Your task to perform on an android device: Go to Yahoo.com Image 0: 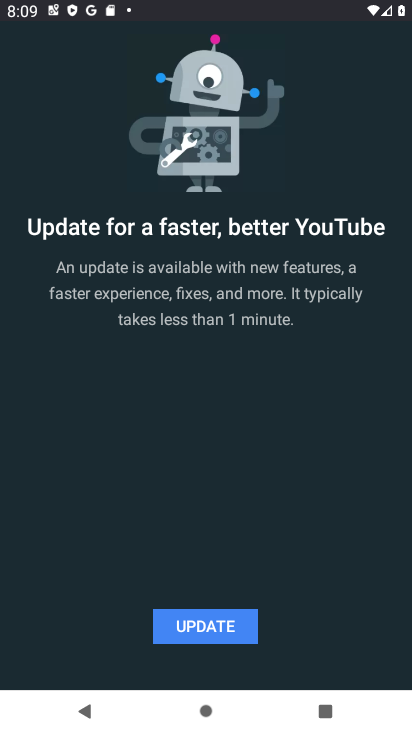
Step 0: press home button
Your task to perform on an android device: Go to Yahoo.com Image 1: 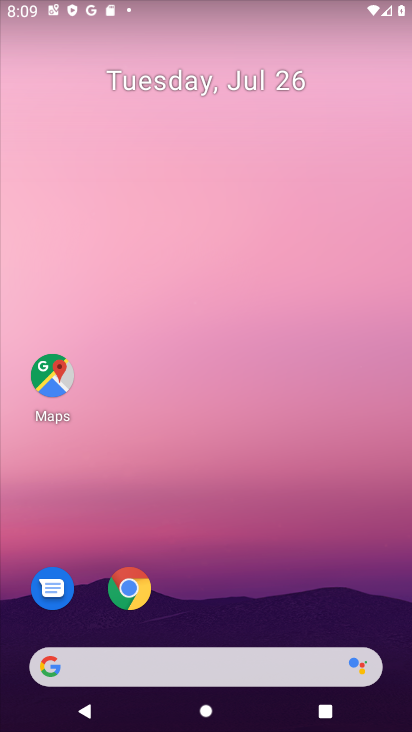
Step 1: click (42, 663)
Your task to perform on an android device: Go to Yahoo.com Image 2: 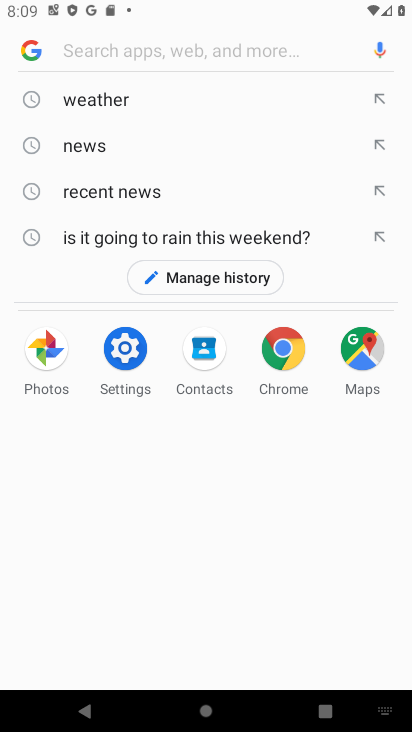
Step 2: type " Yahoo.com"
Your task to perform on an android device: Go to Yahoo.com Image 3: 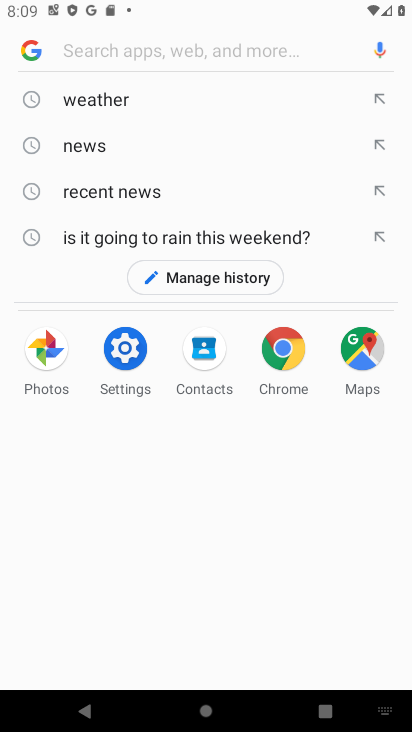
Step 3: click (105, 49)
Your task to perform on an android device: Go to Yahoo.com Image 4: 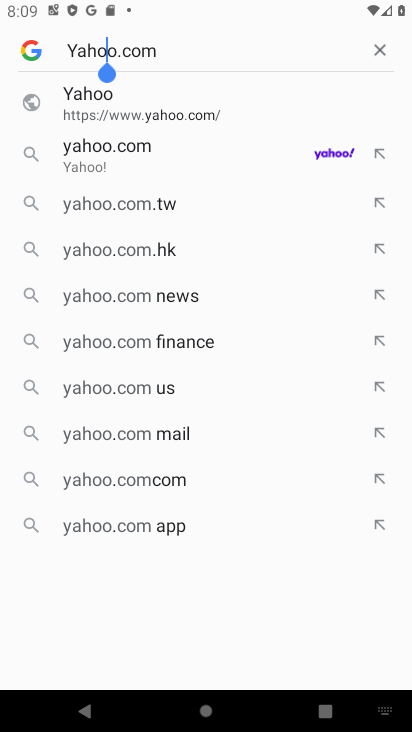
Step 4: click (158, 147)
Your task to perform on an android device: Go to Yahoo.com Image 5: 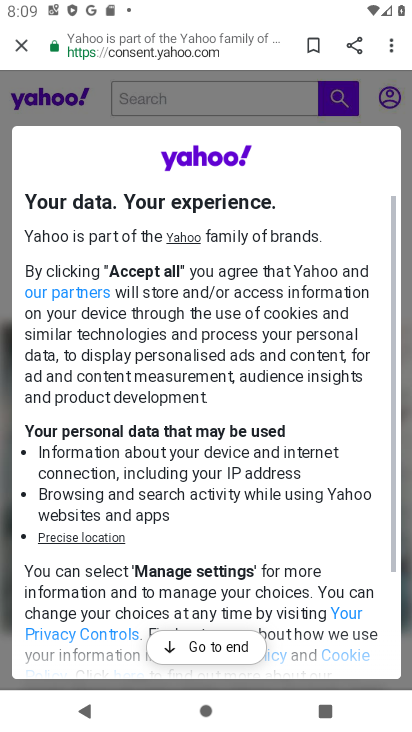
Step 5: click (202, 648)
Your task to perform on an android device: Go to Yahoo.com Image 6: 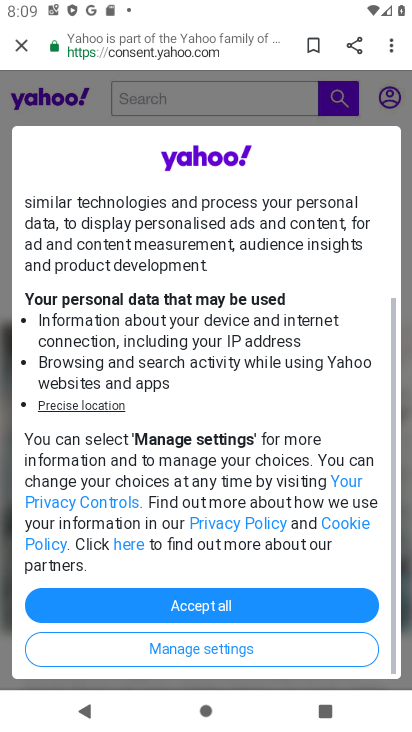
Step 6: click (194, 605)
Your task to perform on an android device: Go to Yahoo.com Image 7: 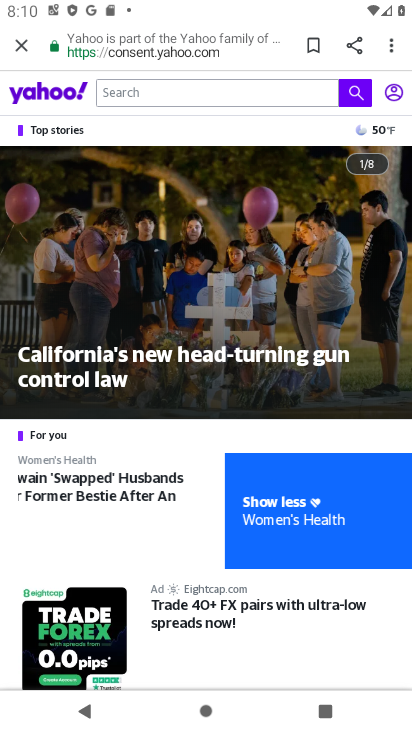
Step 7: task complete